Your task to perform on an android device: turn on the 24-hour format for clock Image 0: 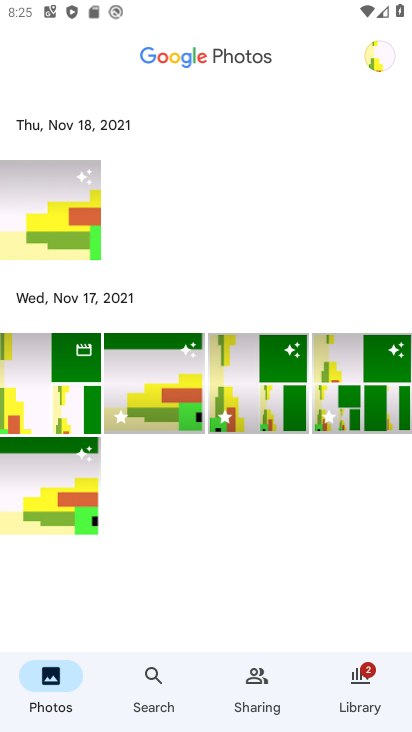
Step 0: press home button
Your task to perform on an android device: turn on the 24-hour format for clock Image 1: 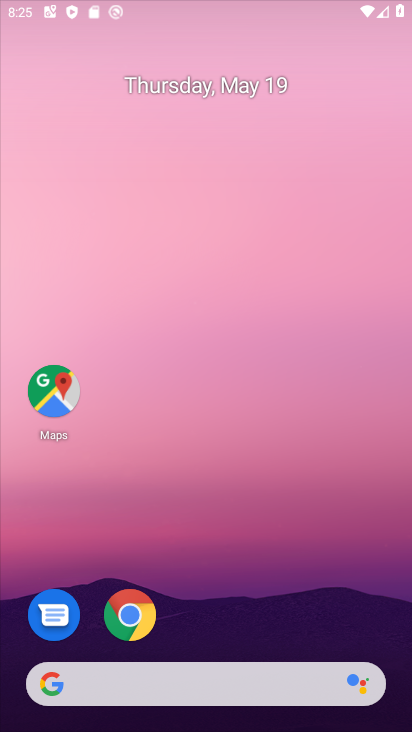
Step 1: drag from (261, 578) to (274, 138)
Your task to perform on an android device: turn on the 24-hour format for clock Image 2: 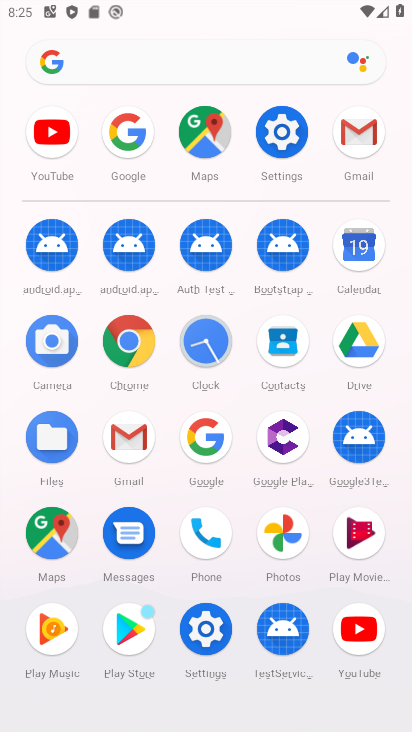
Step 2: click (208, 341)
Your task to perform on an android device: turn on the 24-hour format for clock Image 3: 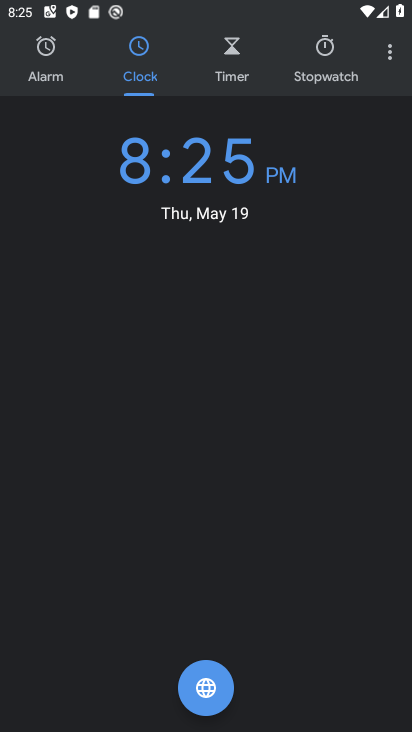
Step 3: click (384, 52)
Your task to perform on an android device: turn on the 24-hour format for clock Image 4: 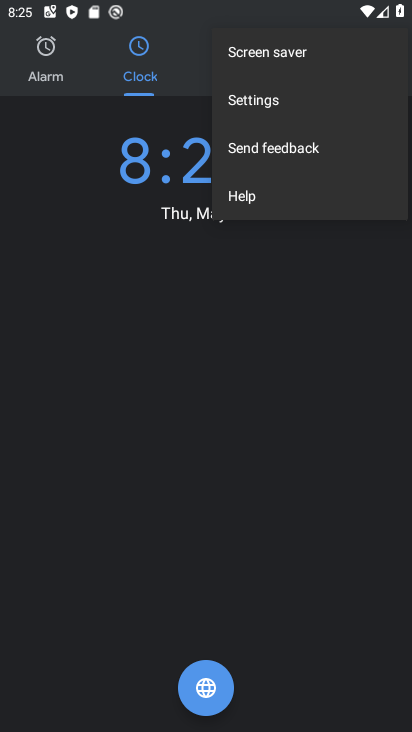
Step 4: click (257, 100)
Your task to perform on an android device: turn on the 24-hour format for clock Image 5: 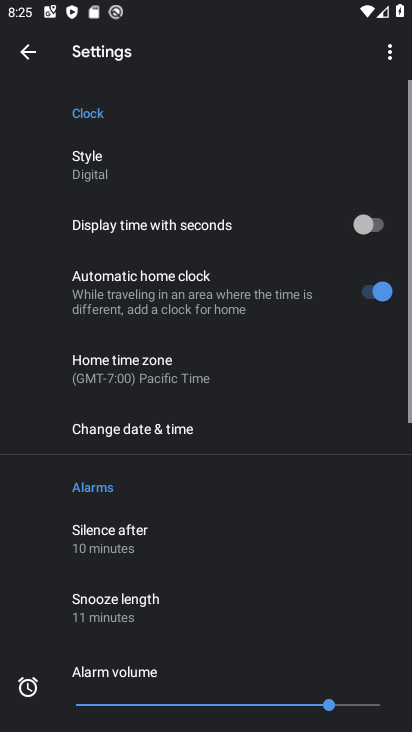
Step 5: drag from (229, 534) to (260, 138)
Your task to perform on an android device: turn on the 24-hour format for clock Image 6: 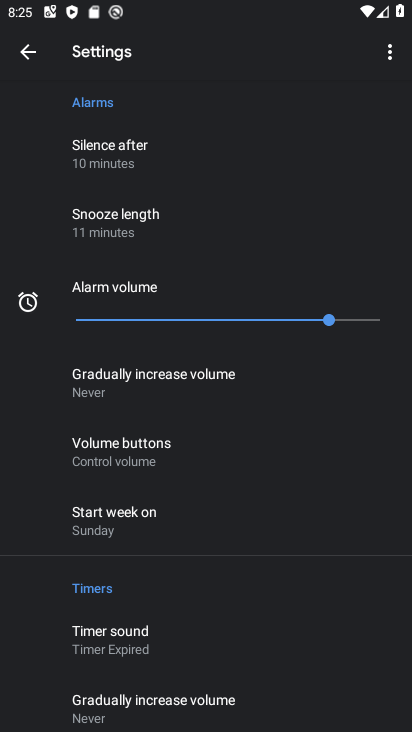
Step 6: drag from (204, 183) to (247, 539)
Your task to perform on an android device: turn on the 24-hour format for clock Image 7: 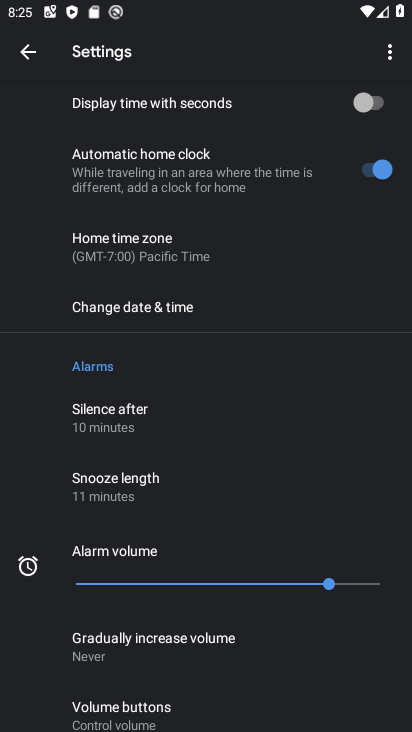
Step 7: click (140, 300)
Your task to perform on an android device: turn on the 24-hour format for clock Image 8: 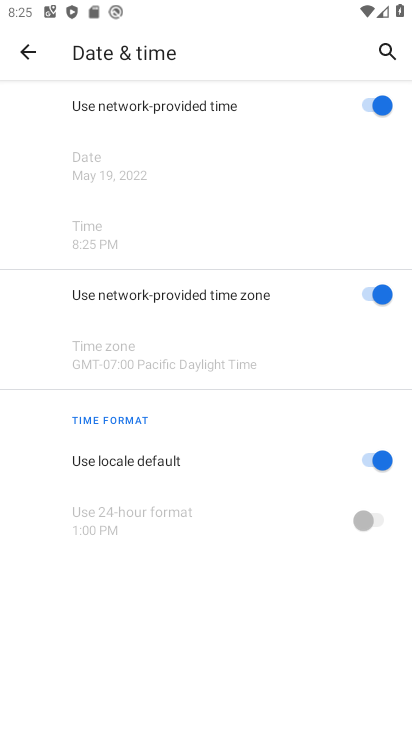
Step 8: click (377, 468)
Your task to perform on an android device: turn on the 24-hour format for clock Image 9: 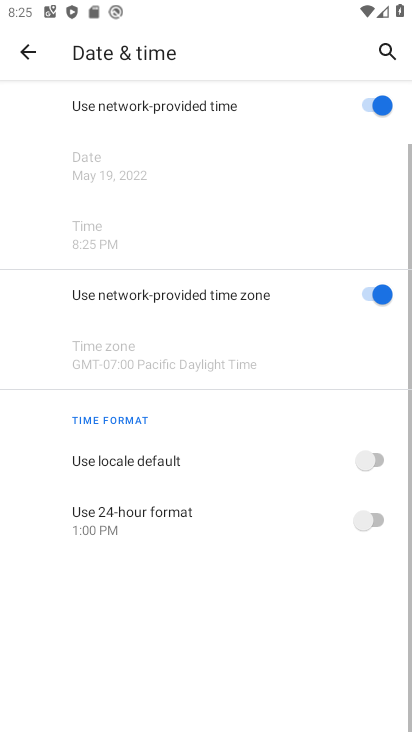
Step 9: click (375, 528)
Your task to perform on an android device: turn on the 24-hour format for clock Image 10: 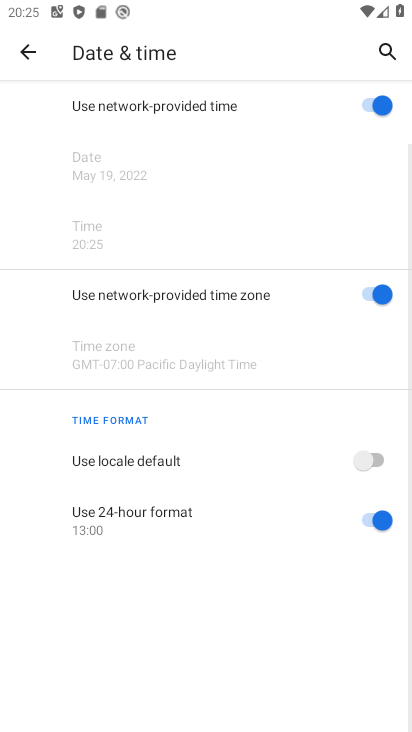
Step 10: task complete